Your task to perform on an android device: Show me the alarms in the clock app Image 0: 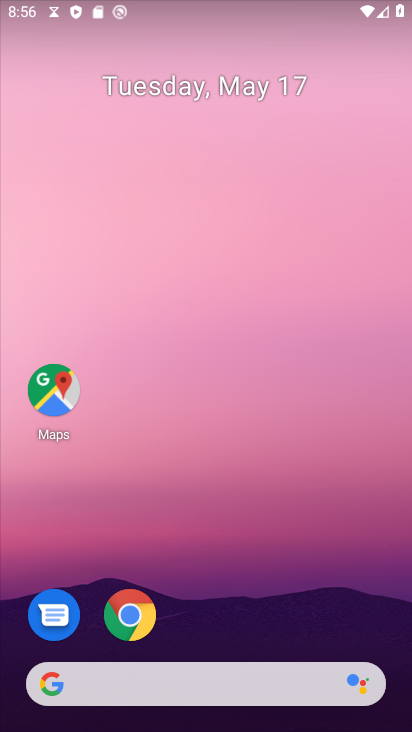
Step 0: drag from (210, 632) to (322, 93)
Your task to perform on an android device: Show me the alarms in the clock app Image 1: 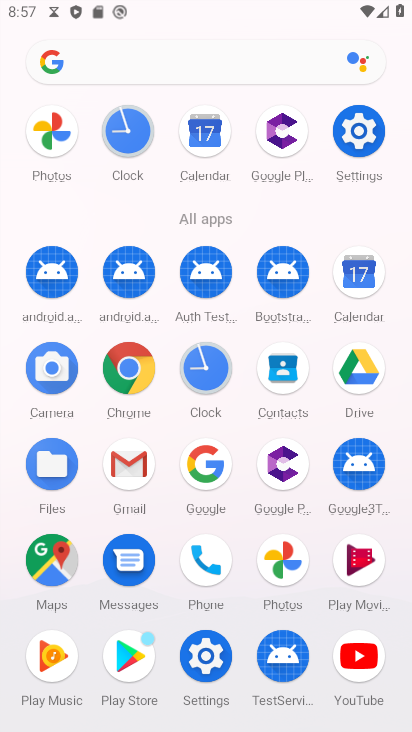
Step 1: click (218, 372)
Your task to perform on an android device: Show me the alarms in the clock app Image 2: 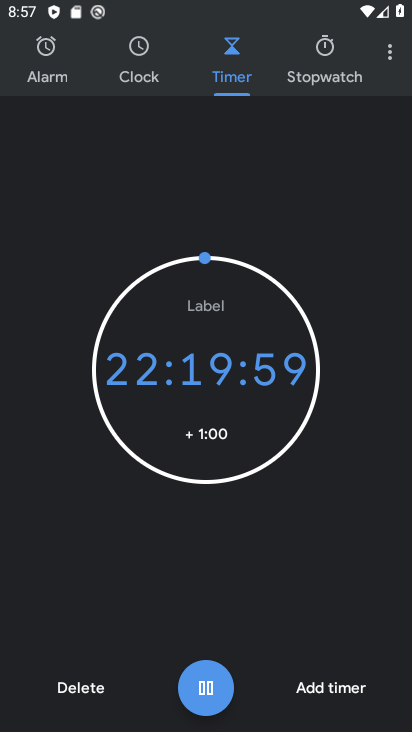
Step 2: click (57, 60)
Your task to perform on an android device: Show me the alarms in the clock app Image 3: 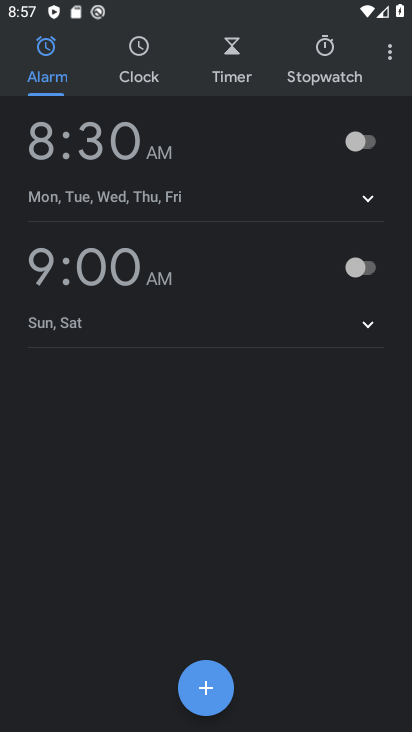
Step 3: task complete